Your task to perform on an android device: Is it going to rain today? Image 0: 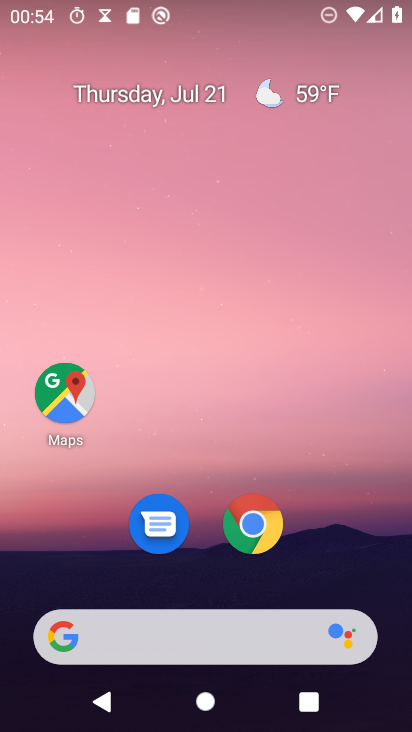
Step 0: click (203, 629)
Your task to perform on an android device: Is it going to rain today? Image 1: 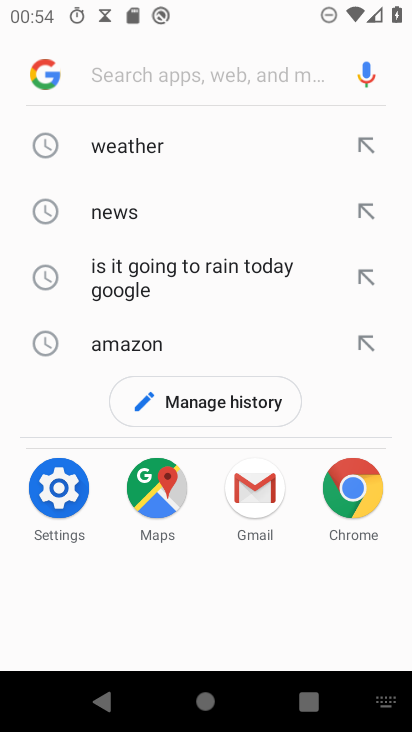
Step 1: click (145, 150)
Your task to perform on an android device: Is it going to rain today? Image 2: 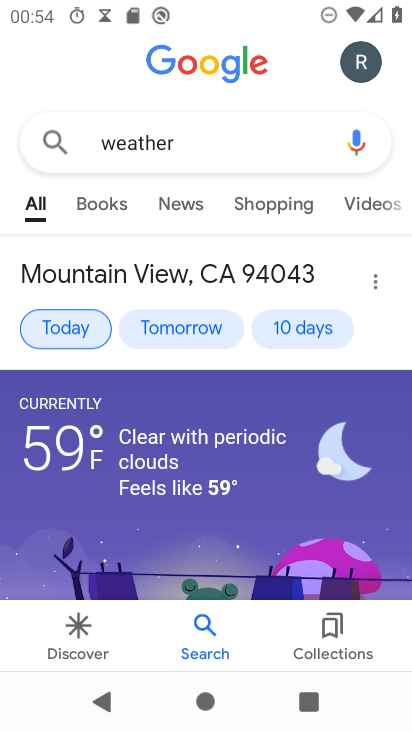
Step 2: task complete